Your task to perform on an android device: Search for good Italian restaurants Image 0: 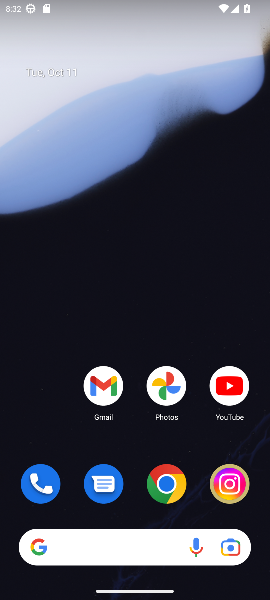
Step 0: click (168, 485)
Your task to perform on an android device: Search for good Italian restaurants Image 1: 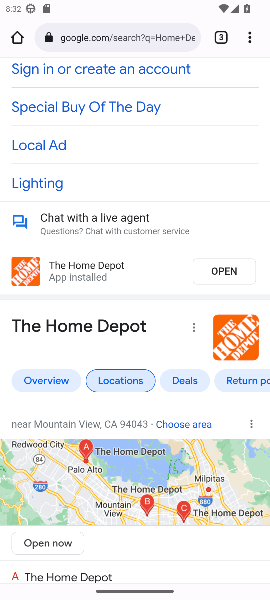
Step 1: click (93, 31)
Your task to perform on an android device: Search for good Italian restaurants Image 2: 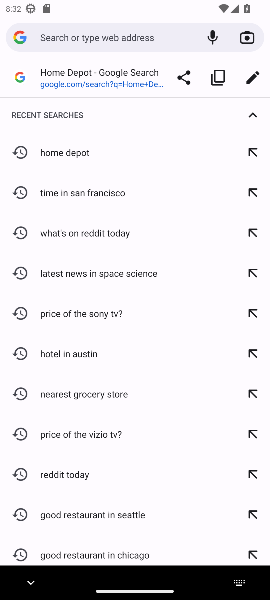
Step 2: type "good Italian restaurants"
Your task to perform on an android device: Search for good Italian restaurants Image 3: 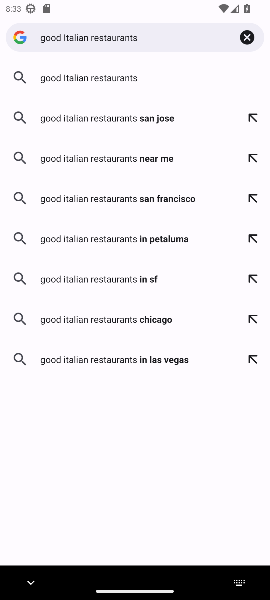
Step 3: click (128, 82)
Your task to perform on an android device: Search for good Italian restaurants Image 4: 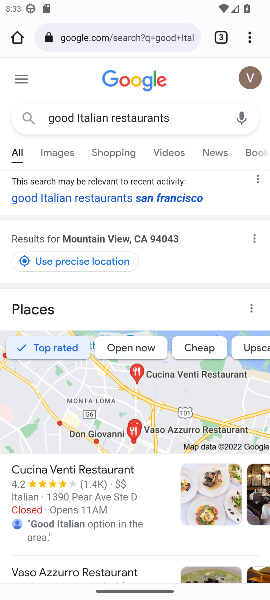
Step 4: task complete